Your task to perform on an android device: Do I have any events this weekend? Image 0: 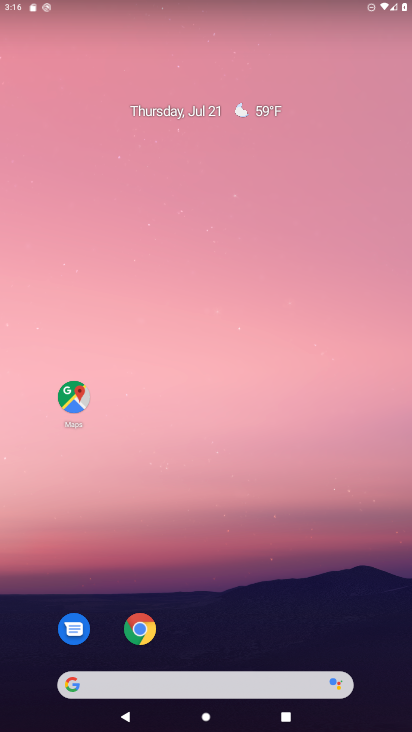
Step 0: drag from (221, 726) to (221, 197)
Your task to perform on an android device: Do I have any events this weekend? Image 1: 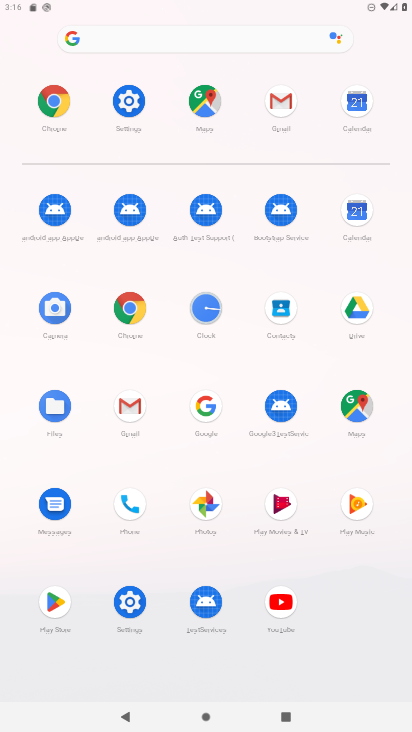
Step 1: click (361, 207)
Your task to perform on an android device: Do I have any events this weekend? Image 2: 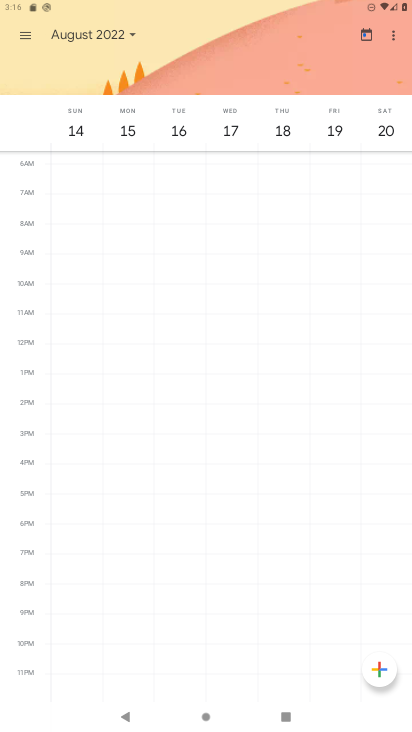
Step 2: click (384, 128)
Your task to perform on an android device: Do I have any events this weekend? Image 3: 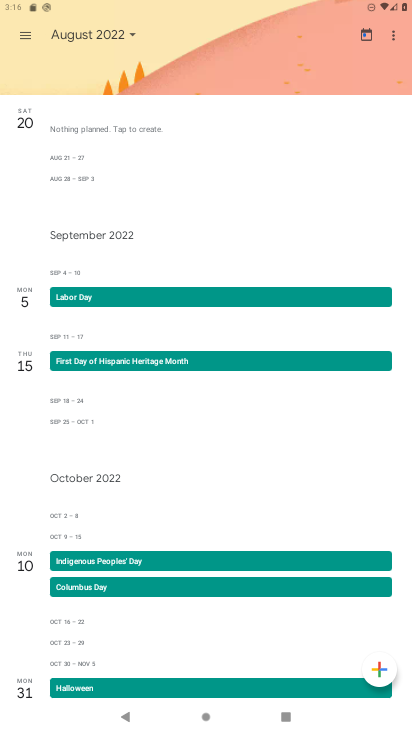
Step 3: task complete